Your task to perform on an android device: Show me popular videos on Youtube Image 0: 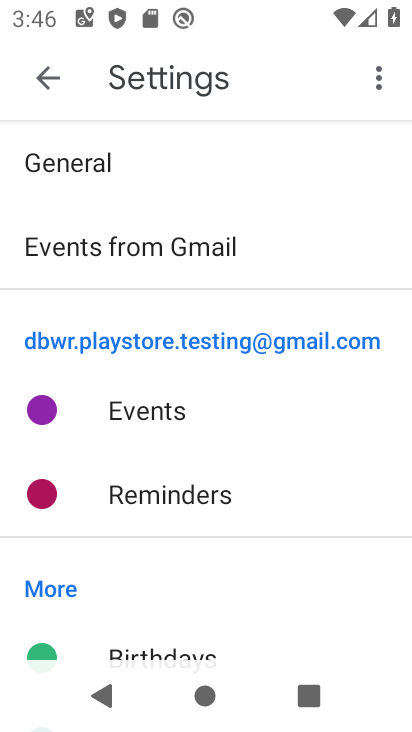
Step 0: press home button
Your task to perform on an android device: Show me popular videos on Youtube Image 1: 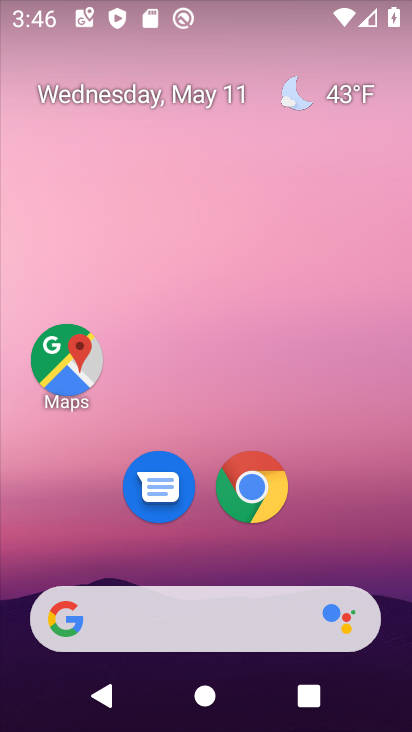
Step 1: drag from (340, 539) to (239, 39)
Your task to perform on an android device: Show me popular videos on Youtube Image 2: 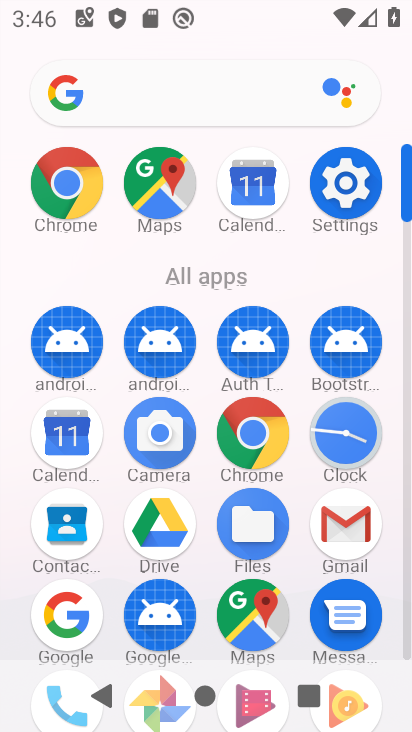
Step 2: drag from (226, 163) to (217, 129)
Your task to perform on an android device: Show me popular videos on Youtube Image 3: 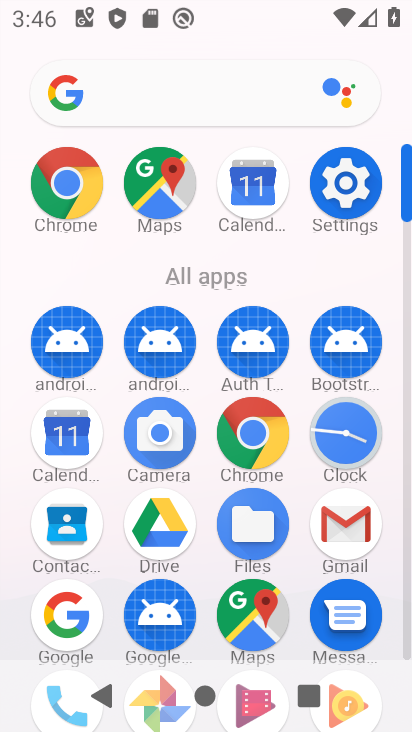
Step 3: drag from (291, 602) to (292, 262)
Your task to perform on an android device: Show me popular videos on Youtube Image 4: 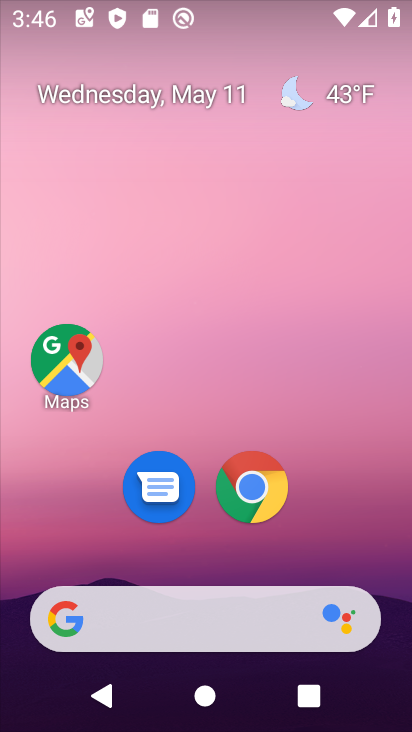
Step 4: drag from (305, 415) to (271, 91)
Your task to perform on an android device: Show me popular videos on Youtube Image 5: 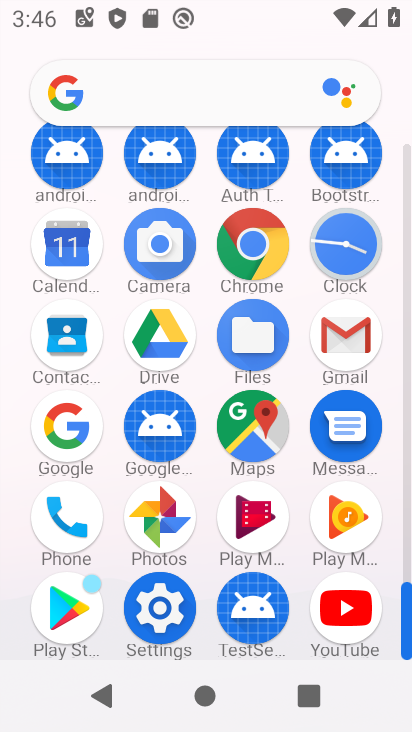
Step 5: click (345, 598)
Your task to perform on an android device: Show me popular videos on Youtube Image 6: 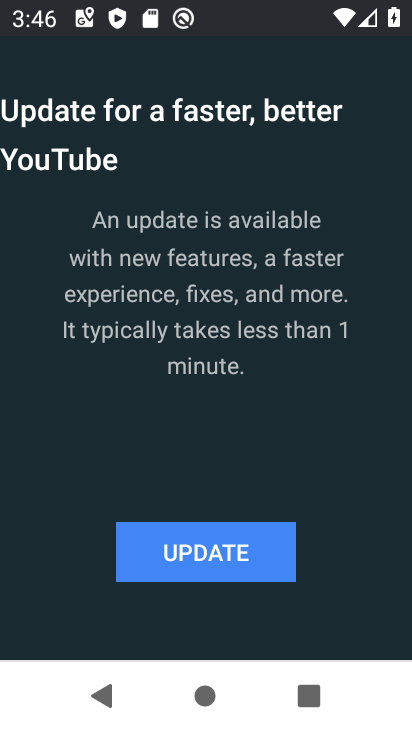
Step 6: click (207, 554)
Your task to perform on an android device: Show me popular videos on Youtube Image 7: 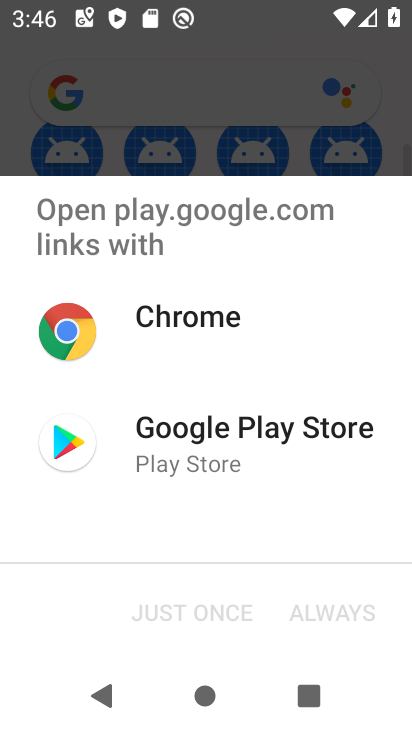
Step 7: click (175, 453)
Your task to perform on an android device: Show me popular videos on Youtube Image 8: 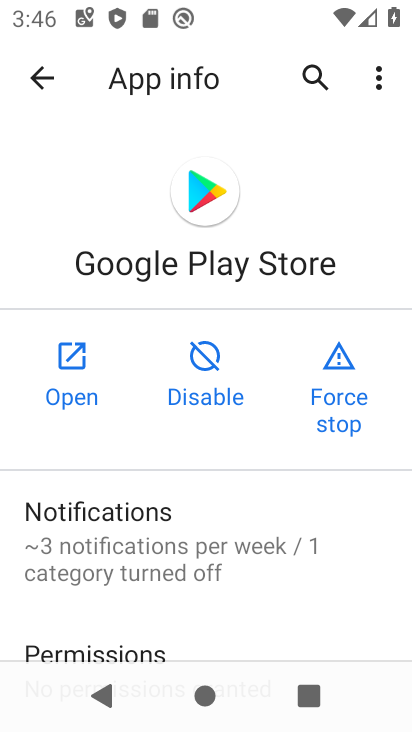
Step 8: click (43, 78)
Your task to perform on an android device: Show me popular videos on Youtube Image 9: 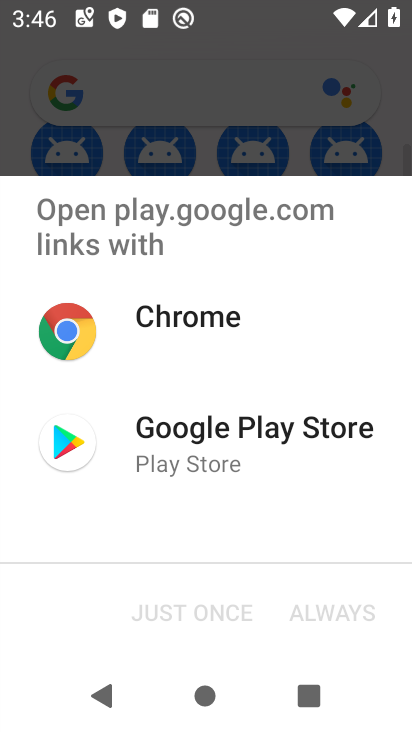
Step 9: click (229, 435)
Your task to perform on an android device: Show me popular videos on Youtube Image 10: 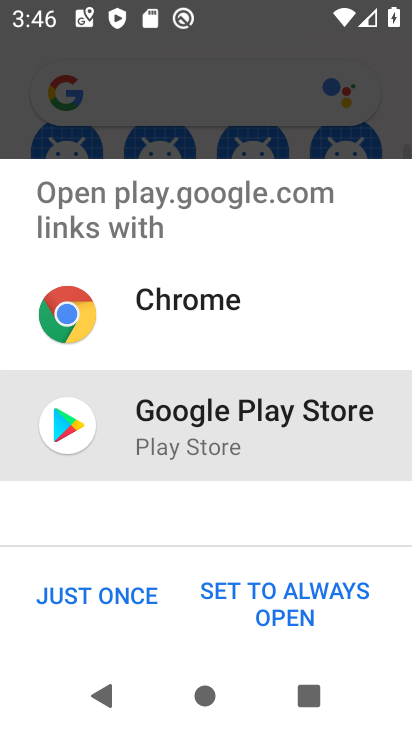
Step 10: click (261, 615)
Your task to perform on an android device: Show me popular videos on Youtube Image 11: 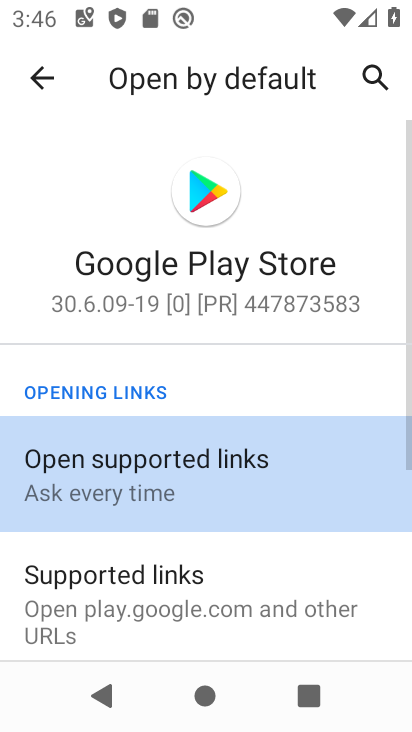
Step 11: click (166, 458)
Your task to perform on an android device: Show me popular videos on Youtube Image 12: 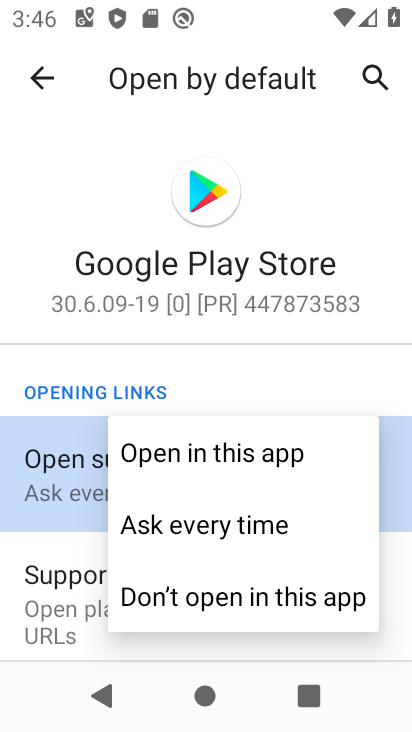
Step 12: click (220, 540)
Your task to perform on an android device: Show me popular videos on Youtube Image 13: 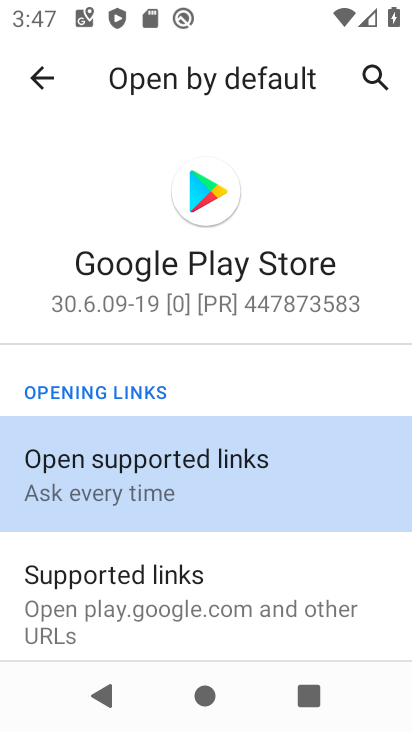
Step 13: click (177, 486)
Your task to perform on an android device: Show me popular videos on Youtube Image 14: 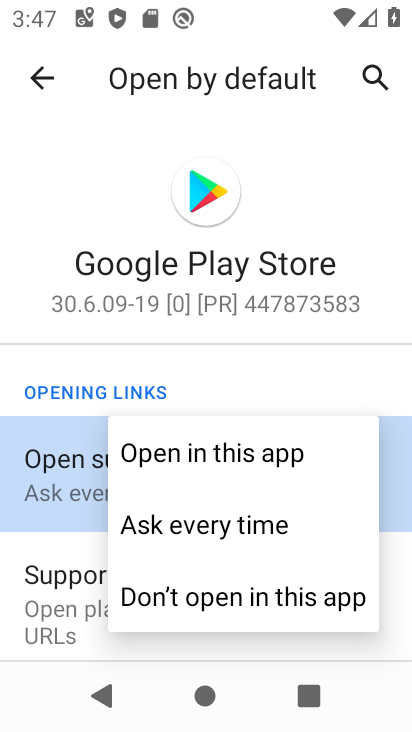
Step 14: click (247, 456)
Your task to perform on an android device: Show me popular videos on Youtube Image 15: 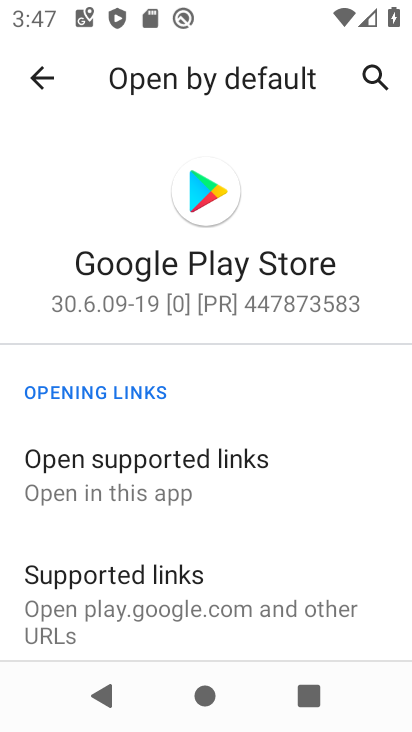
Step 15: click (58, 76)
Your task to perform on an android device: Show me popular videos on Youtube Image 16: 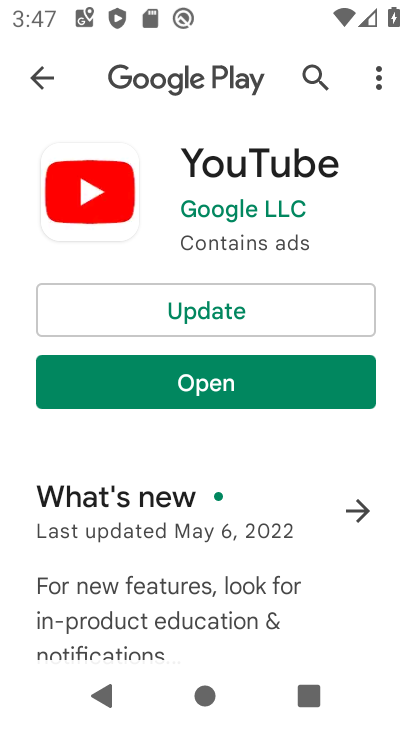
Step 16: click (209, 311)
Your task to perform on an android device: Show me popular videos on Youtube Image 17: 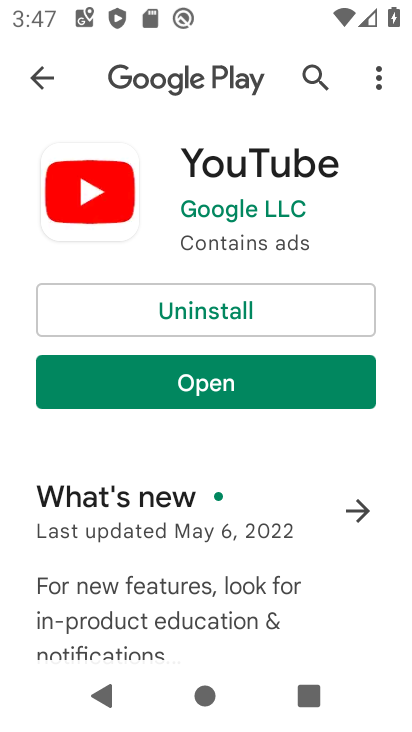
Step 17: click (214, 391)
Your task to perform on an android device: Show me popular videos on Youtube Image 18: 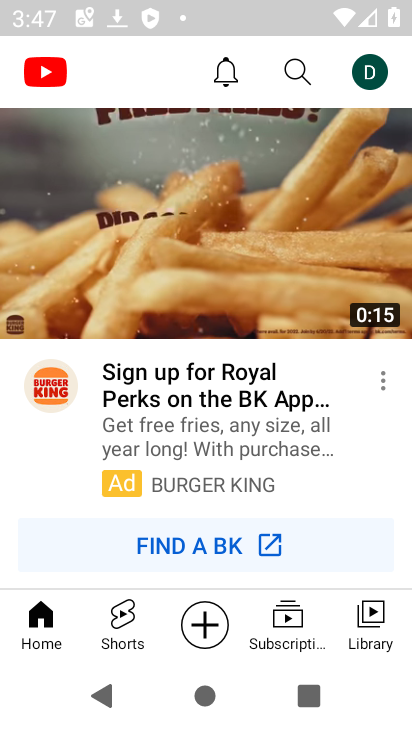
Step 18: task complete